Your task to perform on an android device: all mails in gmail Image 0: 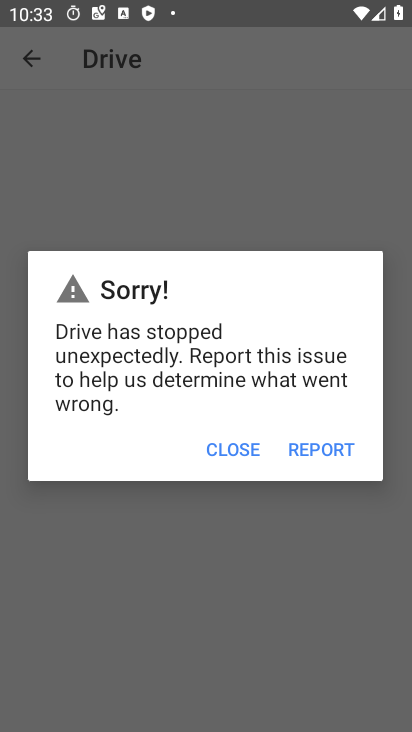
Step 0: press home button
Your task to perform on an android device: all mails in gmail Image 1: 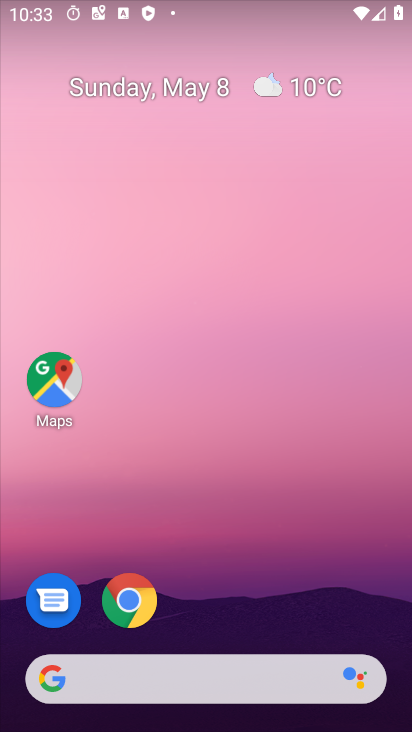
Step 1: drag from (260, 695) to (301, 238)
Your task to perform on an android device: all mails in gmail Image 2: 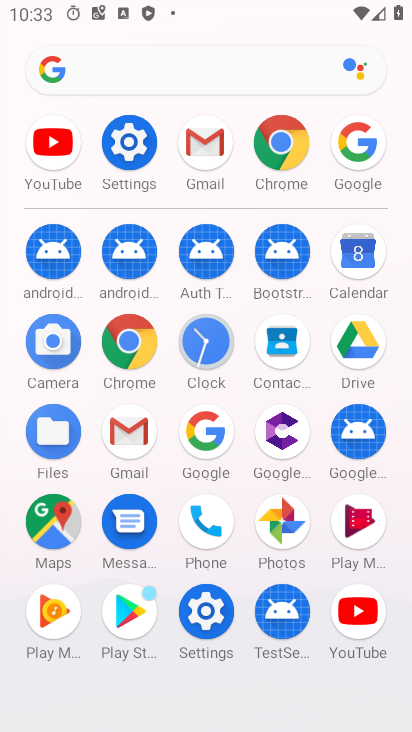
Step 2: click (130, 451)
Your task to perform on an android device: all mails in gmail Image 3: 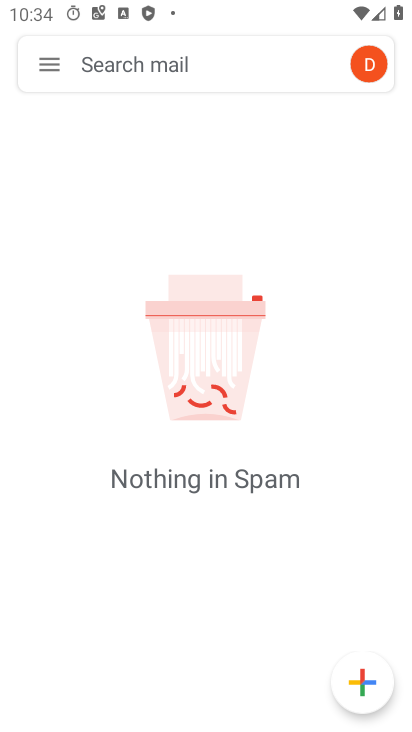
Step 3: click (42, 68)
Your task to perform on an android device: all mails in gmail Image 4: 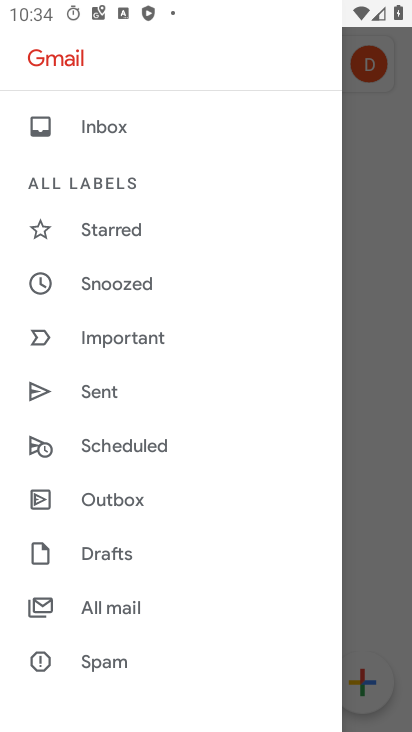
Step 4: drag from (154, 562) to (196, 411)
Your task to perform on an android device: all mails in gmail Image 5: 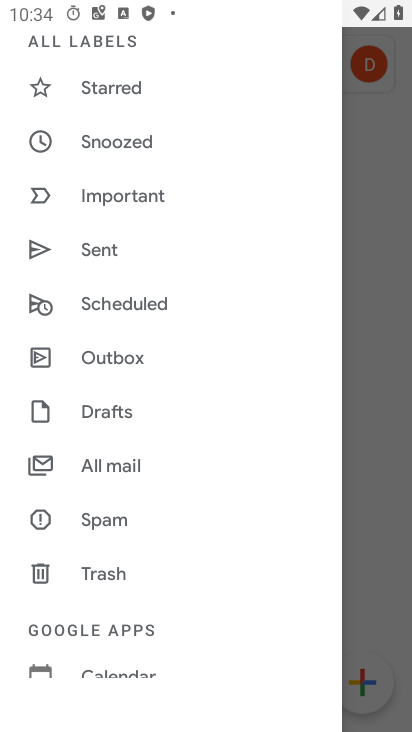
Step 5: click (151, 473)
Your task to perform on an android device: all mails in gmail Image 6: 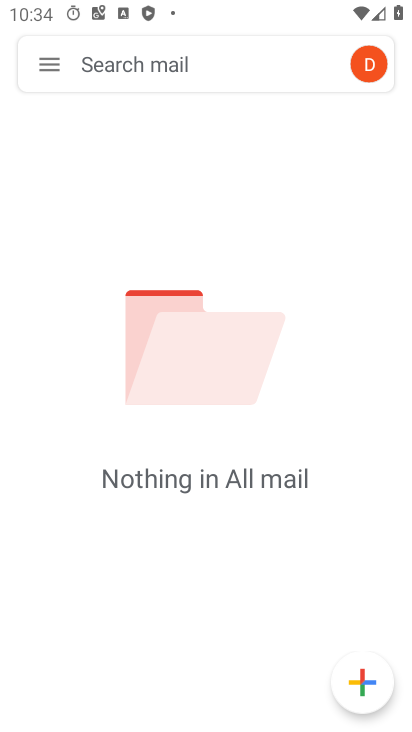
Step 6: task complete